Your task to perform on an android device: delete the emails in spam in the gmail app Image 0: 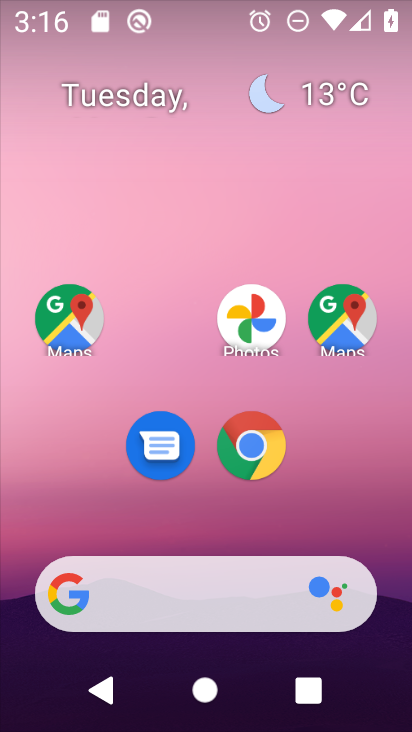
Step 0: drag from (388, 548) to (378, 249)
Your task to perform on an android device: delete the emails in spam in the gmail app Image 1: 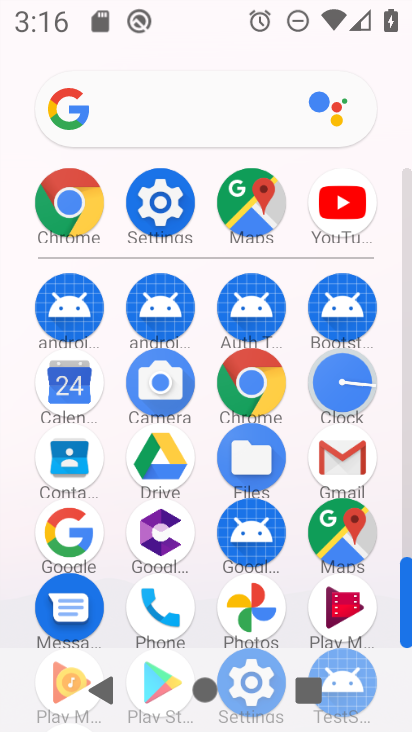
Step 1: click (358, 460)
Your task to perform on an android device: delete the emails in spam in the gmail app Image 2: 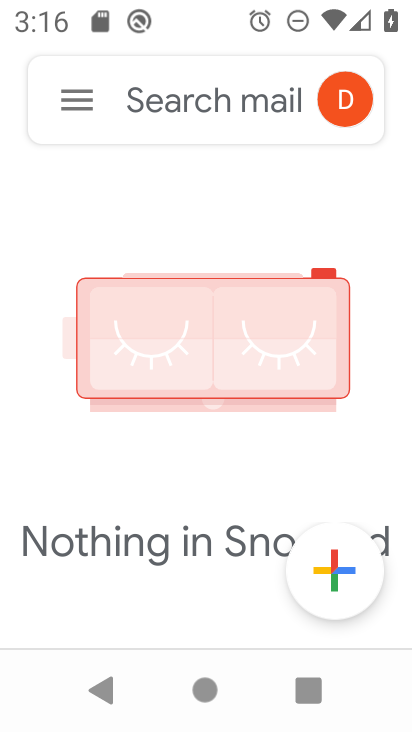
Step 2: click (84, 108)
Your task to perform on an android device: delete the emails in spam in the gmail app Image 3: 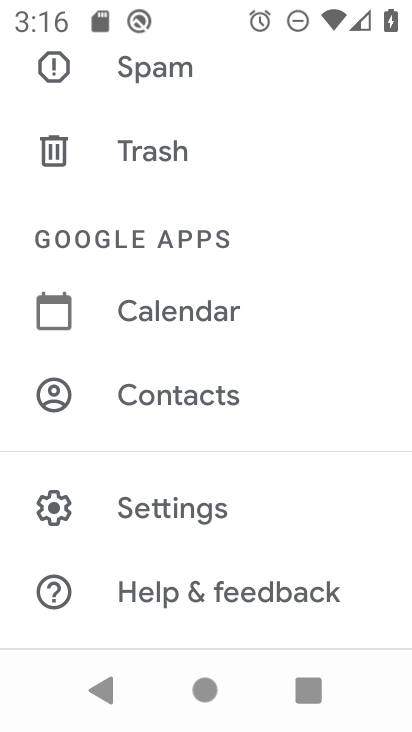
Step 3: click (84, 108)
Your task to perform on an android device: delete the emails in spam in the gmail app Image 4: 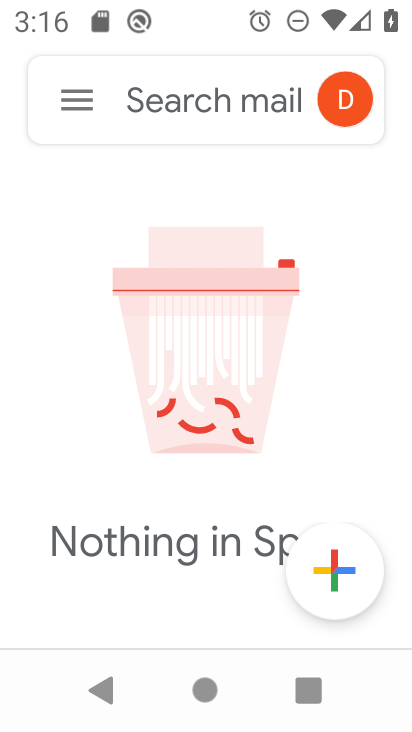
Step 4: click (84, 108)
Your task to perform on an android device: delete the emails in spam in the gmail app Image 5: 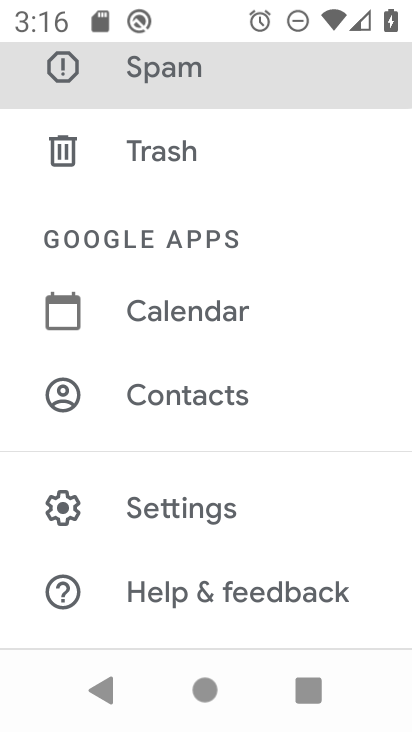
Step 5: drag from (320, 264) to (326, 372)
Your task to perform on an android device: delete the emails in spam in the gmail app Image 6: 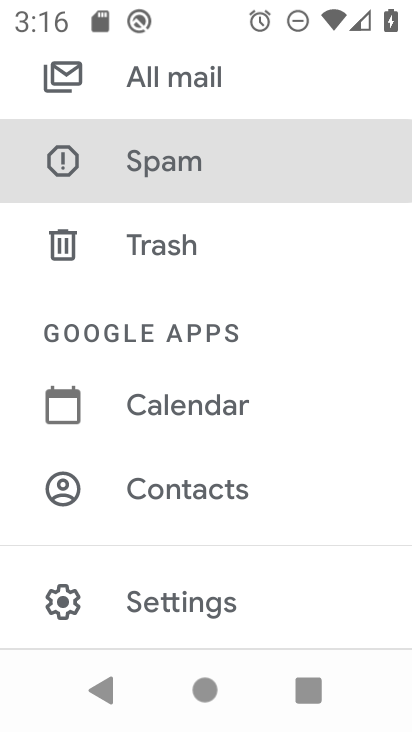
Step 6: drag from (307, 181) to (310, 332)
Your task to perform on an android device: delete the emails in spam in the gmail app Image 7: 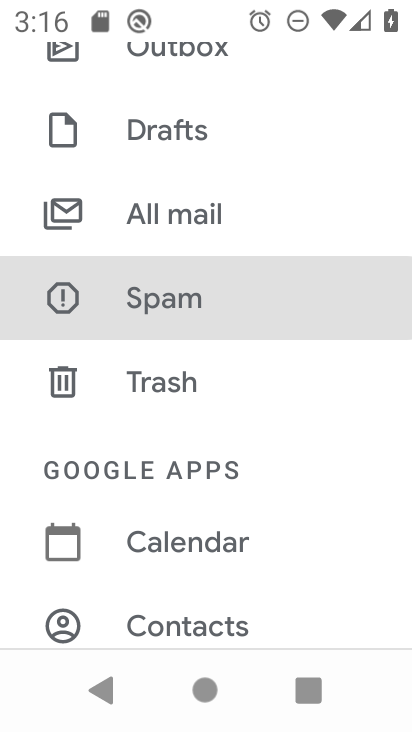
Step 7: drag from (305, 142) to (301, 262)
Your task to perform on an android device: delete the emails in spam in the gmail app Image 8: 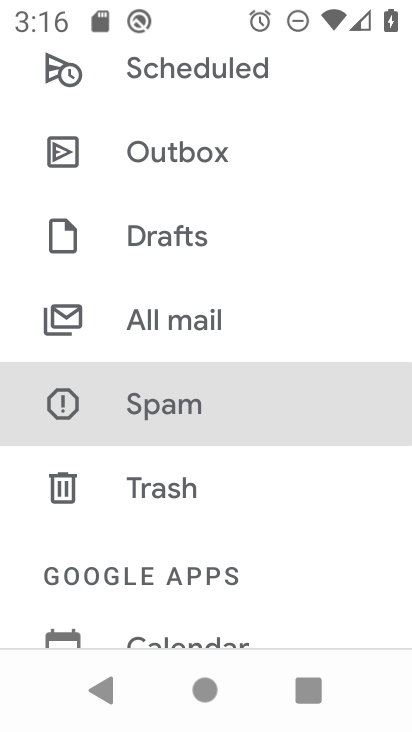
Step 8: drag from (289, 123) to (298, 251)
Your task to perform on an android device: delete the emails in spam in the gmail app Image 9: 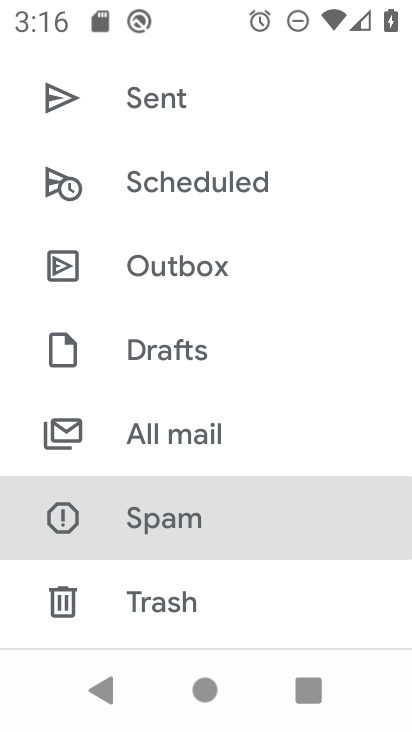
Step 9: drag from (284, 125) to (291, 263)
Your task to perform on an android device: delete the emails in spam in the gmail app Image 10: 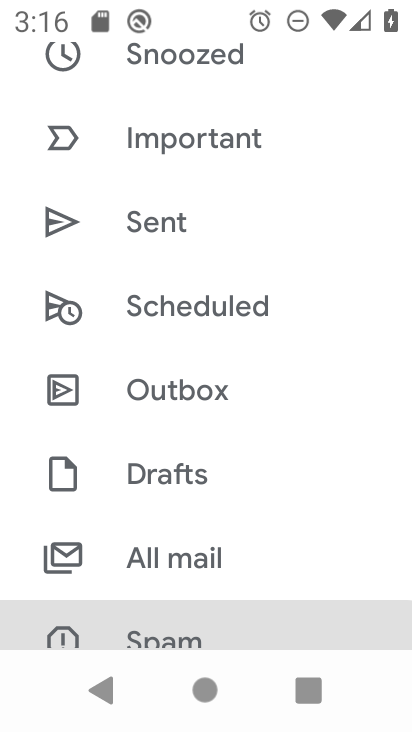
Step 10: drag from (292, 133) to (288, 266)
Your task to perform on an android device: delete the emails in spam in the gmail app Image 11: 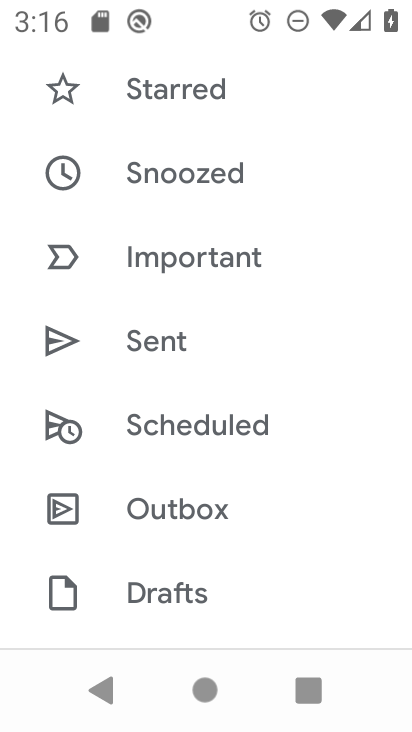
Step 11: drag from (294, 127) to (281, 275)
Your task to perform on an android device: delete the emails in spam in the gmail app Image 12: 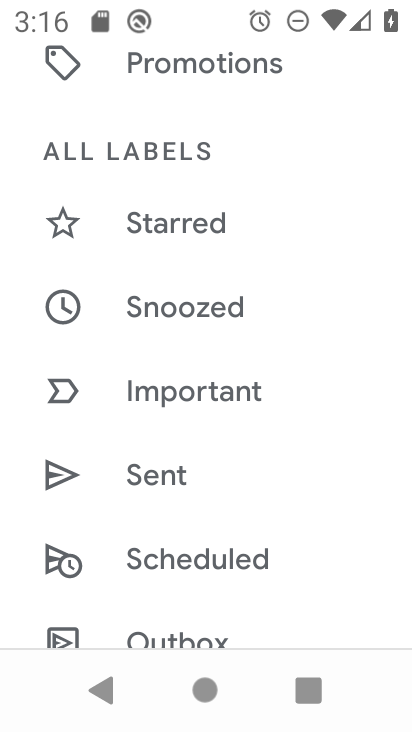
Step 12: drag from (281, 143) to (278, 287)
Your task to perform on an android device: delete the emails in spam in the gmail app Image 13: 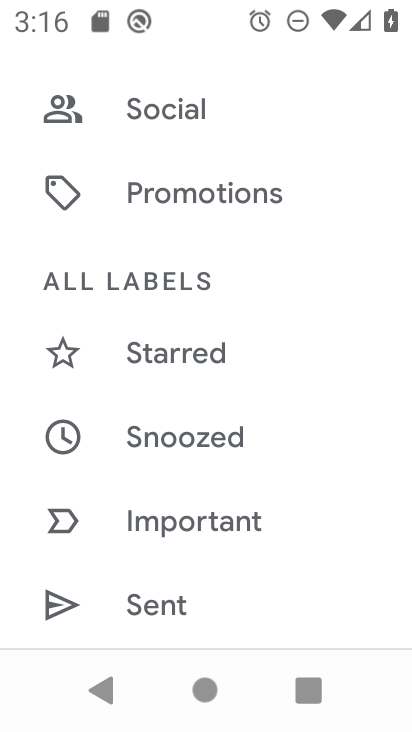
Step 13: drag from (286, 146) to (279, 273)
Your task to perform on an android device: delete the emails in spam in the gmail app Image 14: 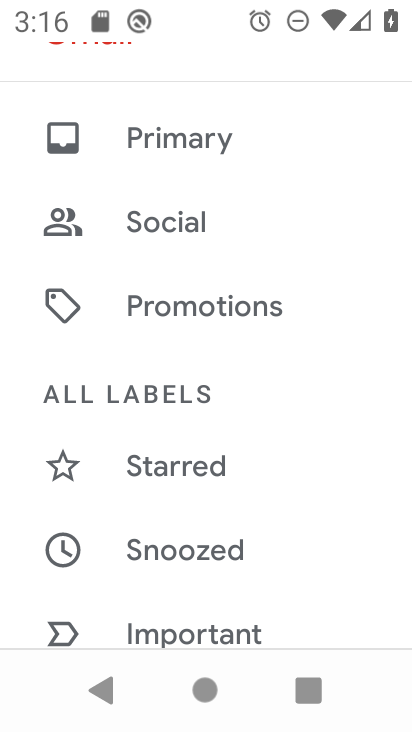
Step 14: drag from (275, 127) to (276, 263)
Your task to perform on an android device: delete the emails in spam in the gmail app Image 15: 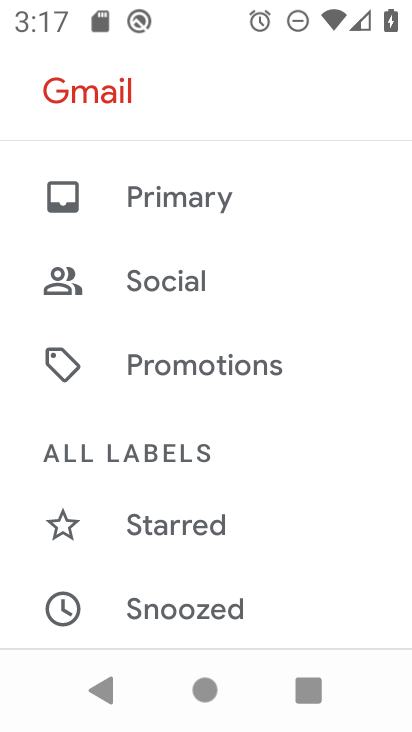
Step 15: click (199, 211)
Your task to perform on an android device: delete the emails in spam in the gmail app Image 16: 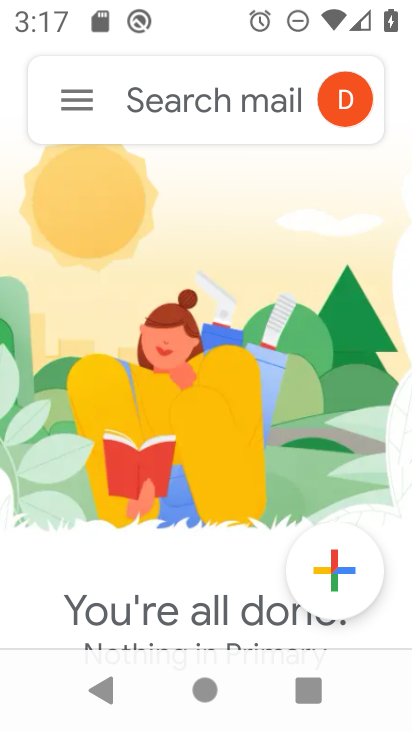
Step 16: task complete